Your task to perform on an android device: What is the recent news? Image 0: 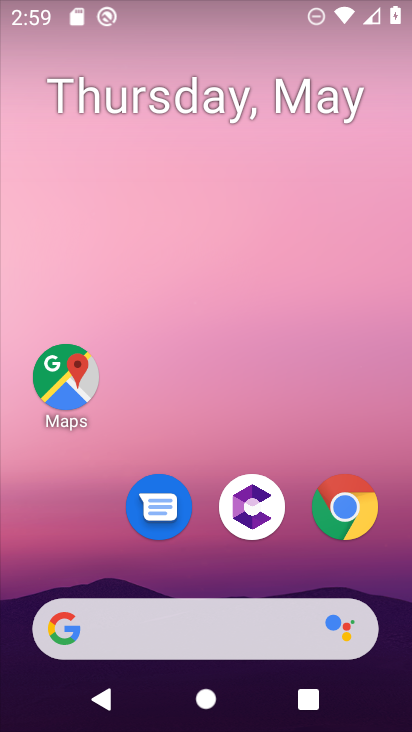
Step 0: click (207, 624)
Your task to perform on an android device: What is the recent news? Image 1: 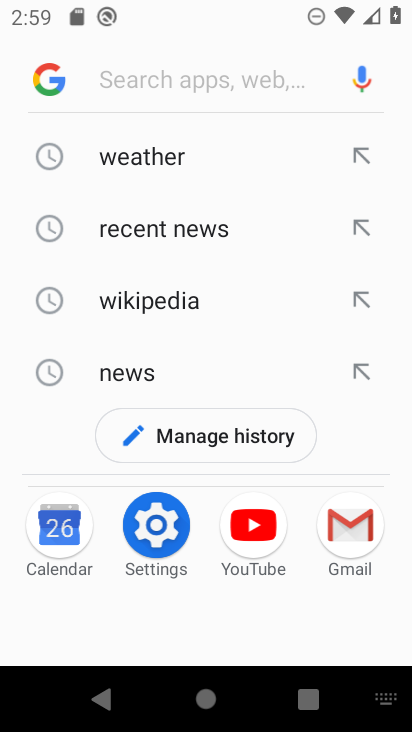
Step 1: click (138, 230)
Your task to perform on an android device: What is the recent news? Image 2: 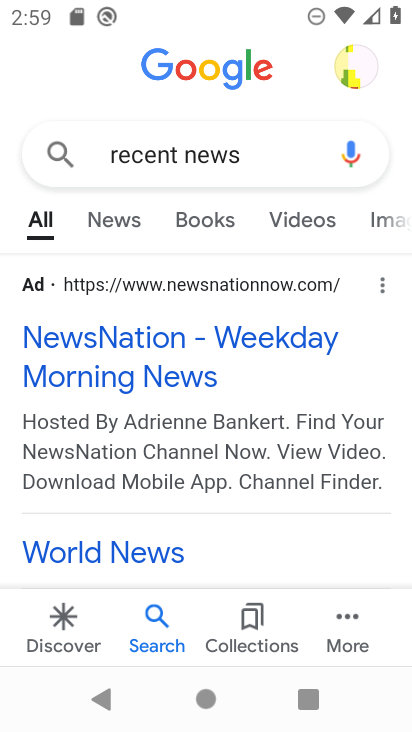
Step 2: task complete